Your task to perform on an android device: toggle improve location accuracy Image 0: 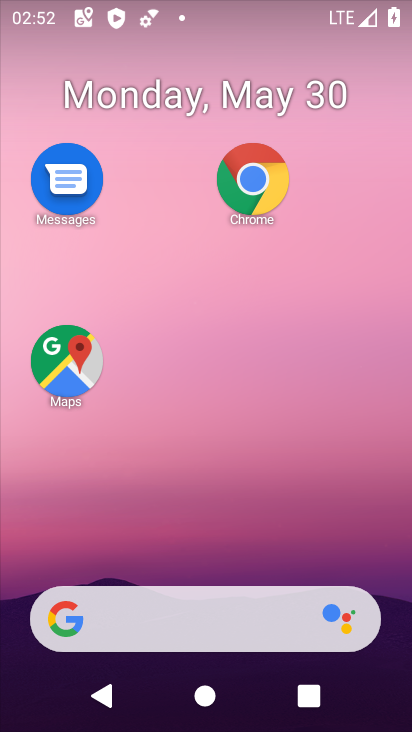
Step 0: drag from (194, 540) to (162, 17)
Your task to perform on an android device: toggle improve location accuracy Image 1: 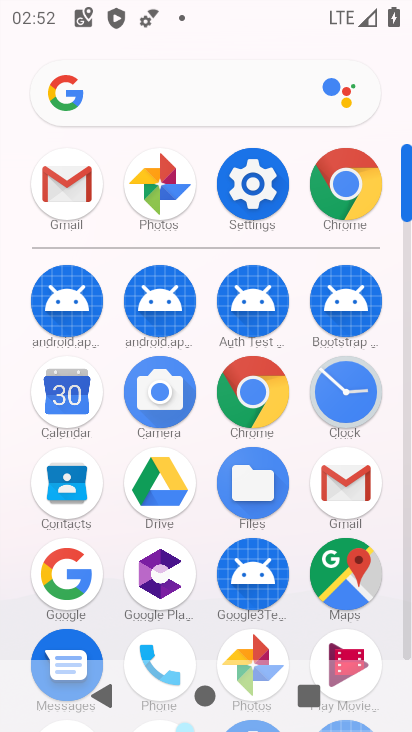
Step 1: click (249, 182)
Your task to perform on an android device: toggle improve location accuracy Image 2: 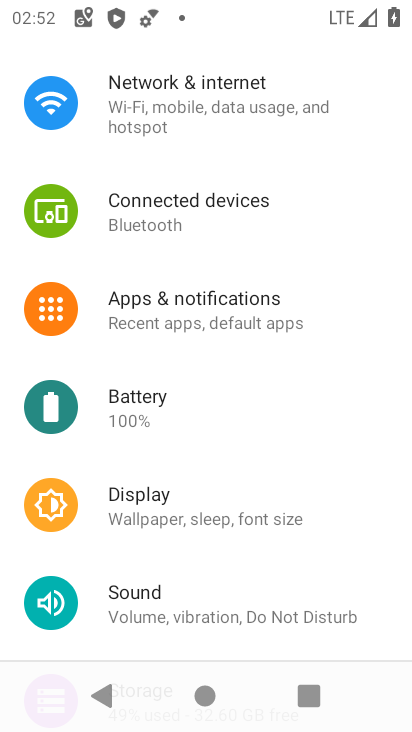
Step 2: drag from (190, 559) to (154, 214)
Your task to perform on an android device: toggle improve location accuracy Image 3: 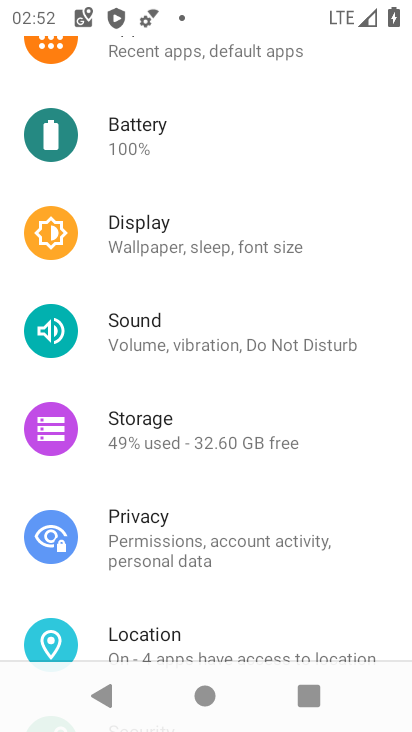
Step 3: click (164, 647)
Your task to perform on an android device: toggle improve location accuracy Image 4: 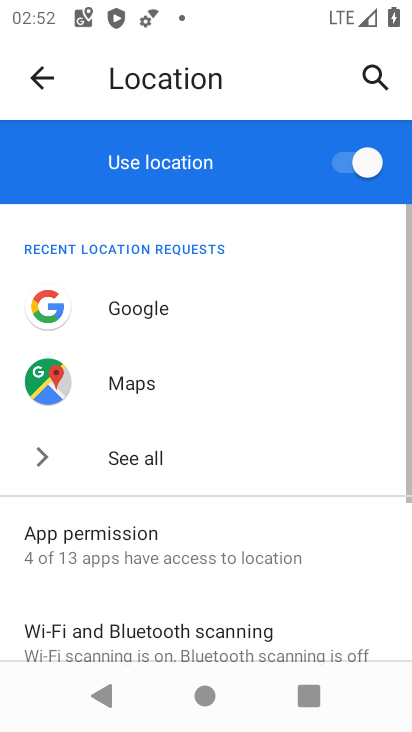
Step 4: drag from (118, 622) to (129, 51)
Your task to perform on an android device: toggle improve location accuracy Image 5: 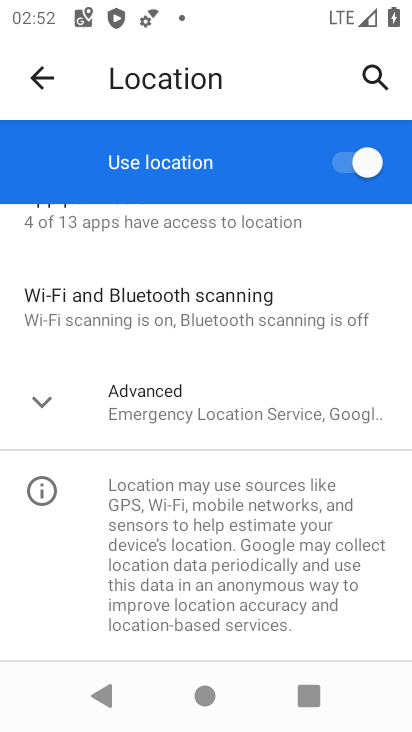
Step 5: click (158, 428)
Your task to perform on an android device: toggle improve location accuracy Image 6: 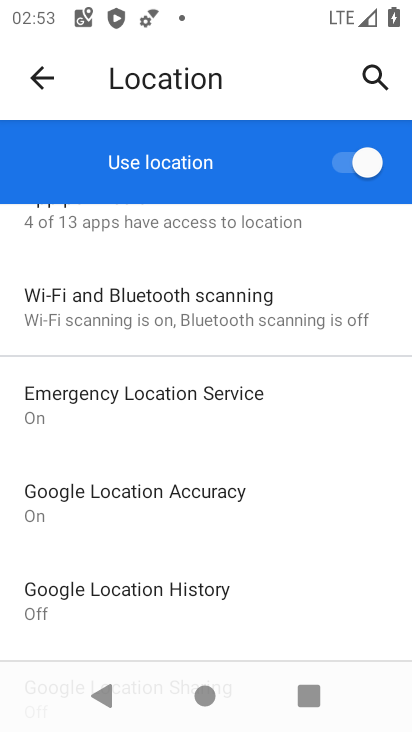
Step 6: click (131, 497)
Your task to perform on an android device: toggle improve location accuracy Image 7: 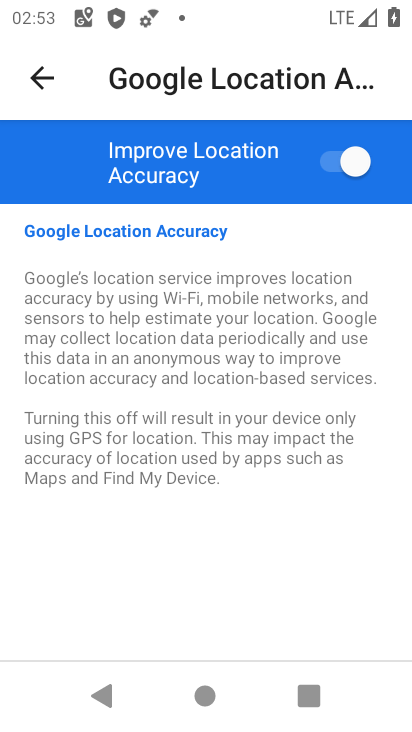
Step 7: drag from (180, 527) to (162, 285)
Your task to perform on an android device: toggle improve location accuracy Image 8: 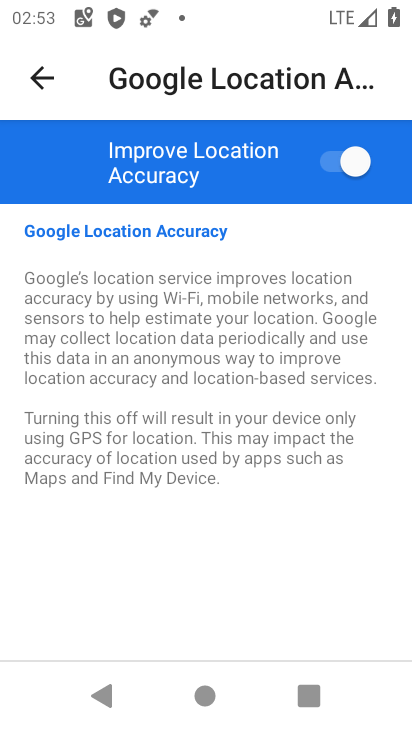
Step 8: click (322, 161)
Your task to perform on an android device: toggle improve location accuracy Image 9: 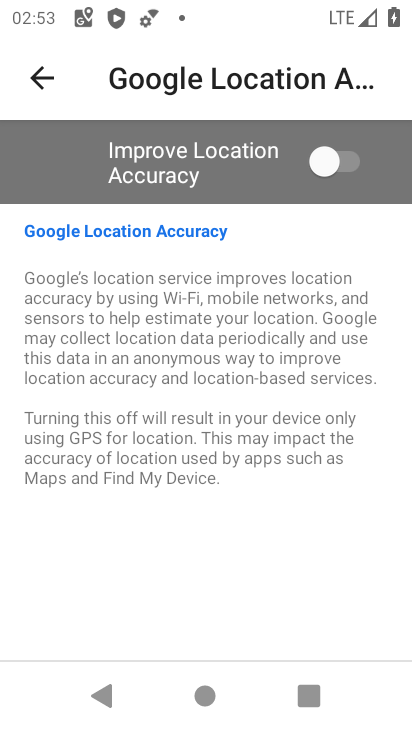
Step 9: task complete